Your task to perform on an android device: Clear all items from cart on bestbuy.com. Add alienware aurora to the cart on bestbuy.com, then select checkout. Image 0: 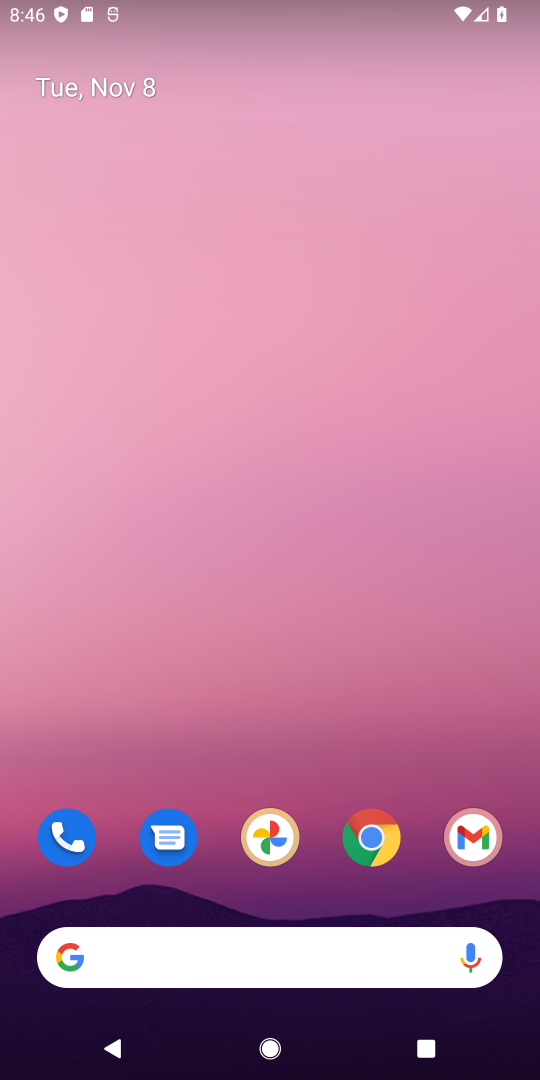
Step 0: click (383, 852)
Your task to perform on an android device: Clear all items from cart on bestbuy.com. Add alienware aurora to the cart on bestbuy.com, then select checkout. Image 1: 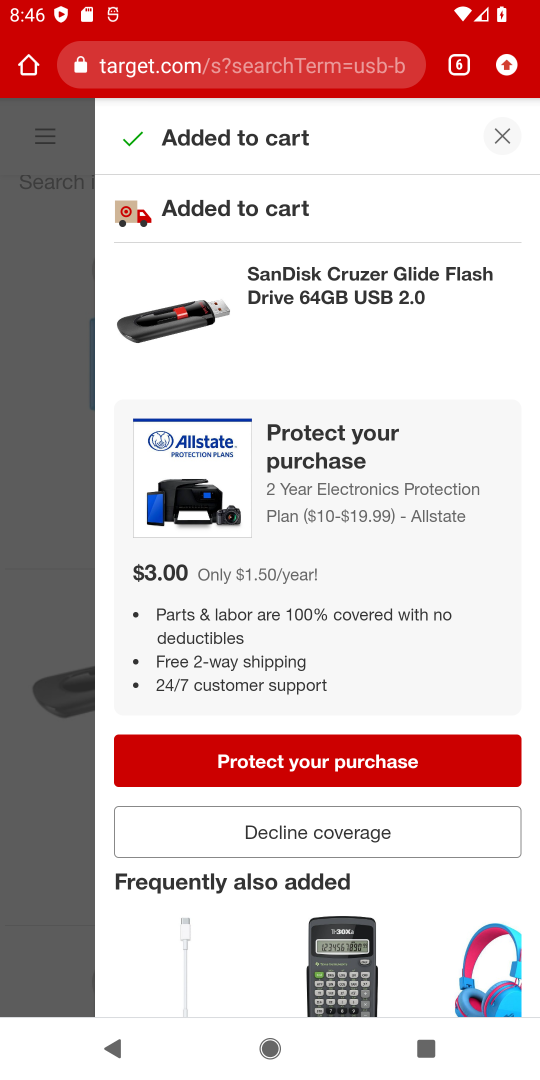
Step 1: click (461, 70)
Your task to perform on an android device: Clear all items from cart on bestbuy.com. Add alienware aurora to the cart on bestbuy.com, then select checkout. Image 2: 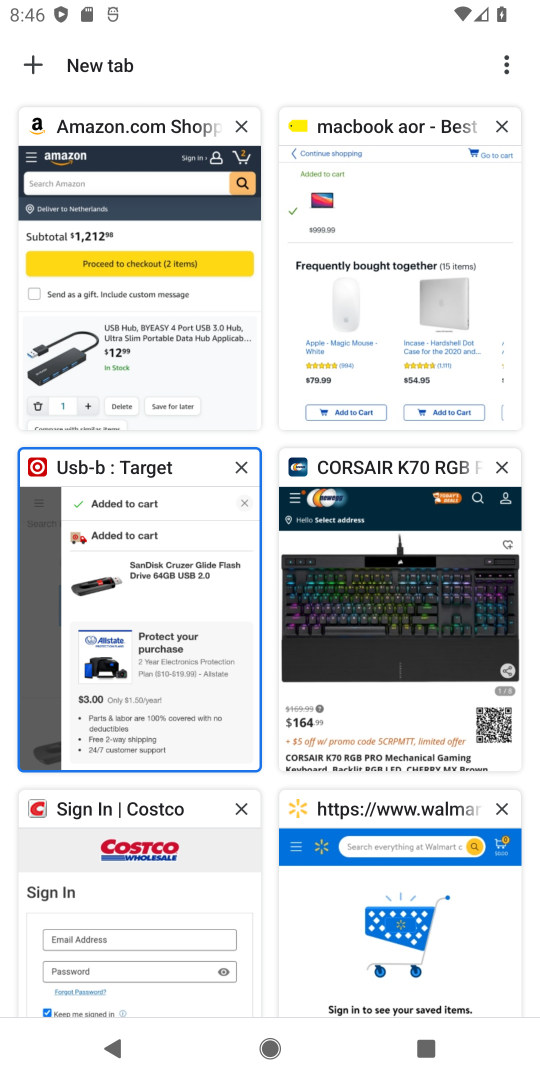
Step 2: click (380, 311)
Your task to perform on an android device: Clear all items from cart on bestbuy.com. Add alienware aurora to the cart on bestbuy.com, then select checkout. Image 3: 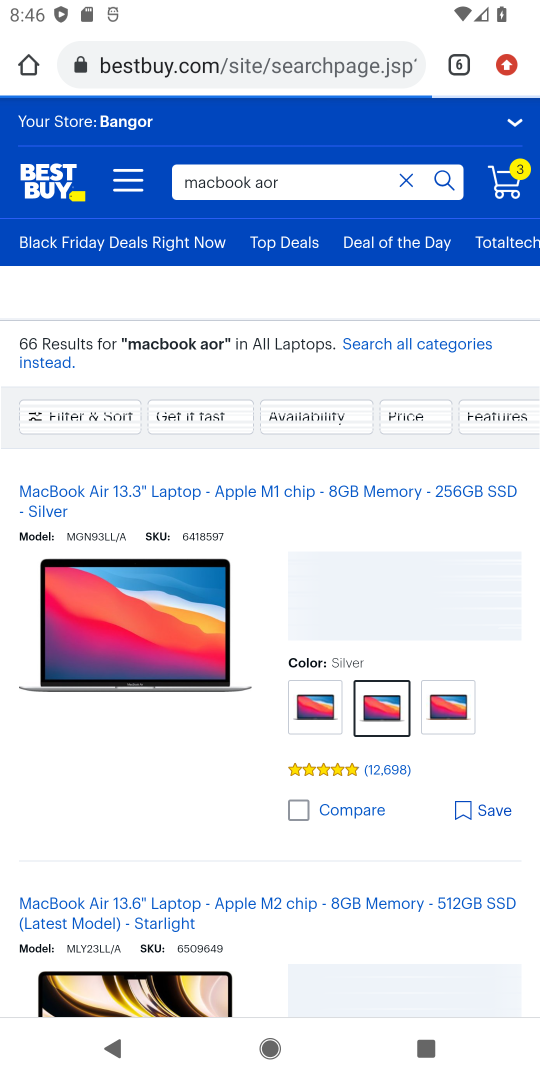
Step 3: click (503, 179)
Your task to perform on an android device: Clear all items from cart on bestbuy.com. Add alienware aurora to the cart on bestbuy.com, then select checkout. Image 4: 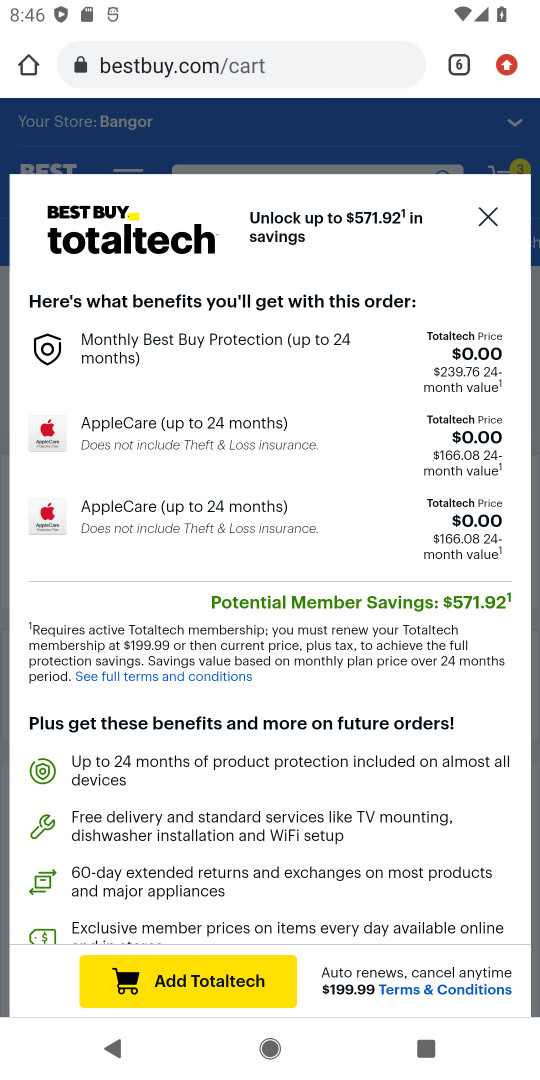
Step 4: click (485, 216)
Your task to perform on an android device: Clear all items from cart on bestbuy.com. Add alienware aurora to the cart on bestbuy.com, then select checkout. Image 5: 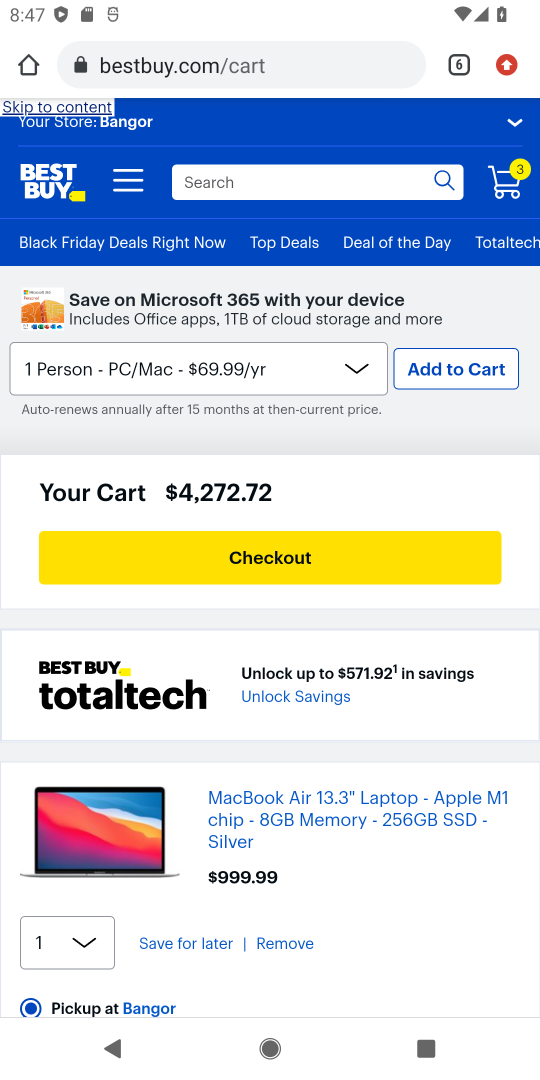
Step 5: click (277, 946)
Your task to perform on an android device: Clear all items from cart on bestbuy.com. Add alienware aurora to the cart on bestbuy.com, then select checkout. Image 6: 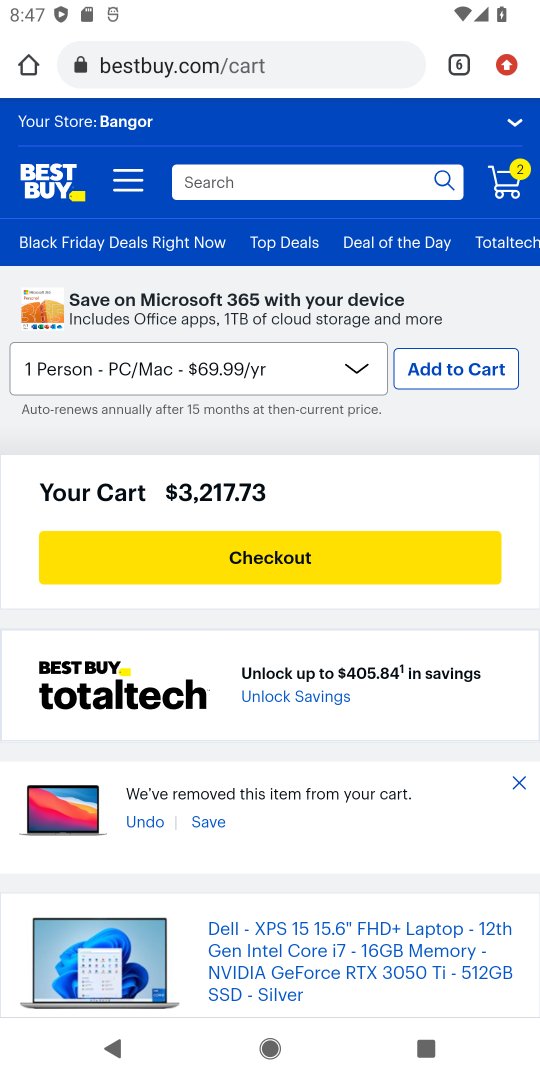
Step 6: drag from (305, 868) to (305, 579)
Your task to perform on an android device: Clear all items from cart on bestbuy.com. Add alienware aurora to the cart on bestbuy.com, then select checkout. Image 7: 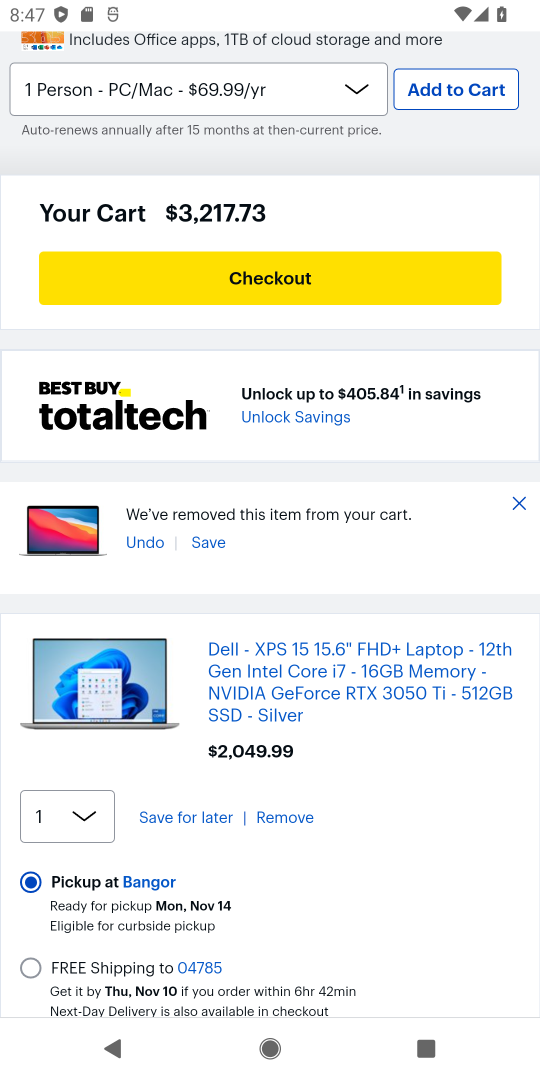
Step 7: click (284, 815)
Your task to perform on an android device: Clear all items from cart on bestbuy.com. Add alienware aurora to the cart on bestbuy.com, then select checkout. Image 8: 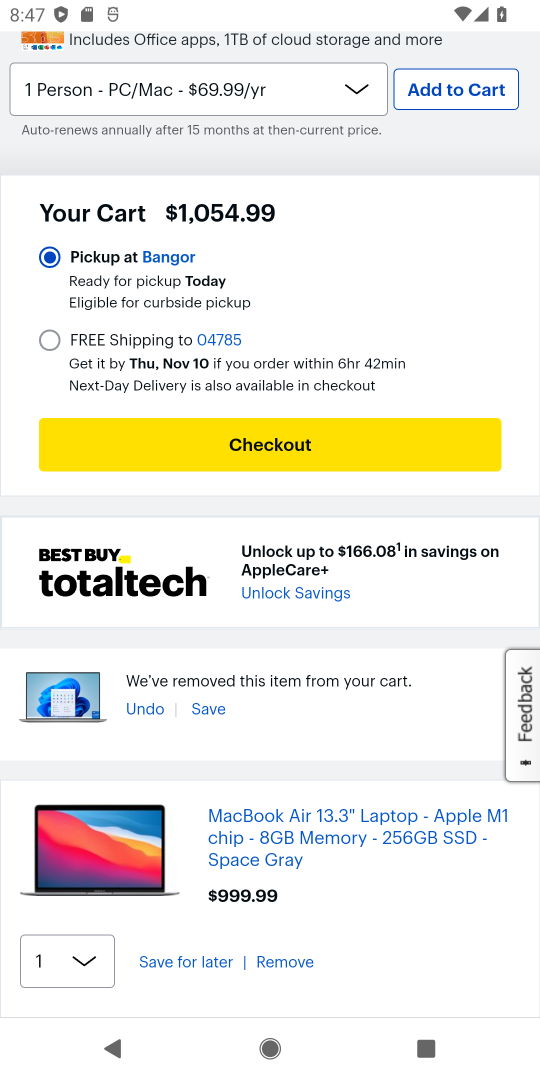
Step 8: click (296, 958)
Your task to perform on an android device: Clear all items from cart on bestbuy.com. Add alienware aurora to the cart on bestbuy.com, then select checkout. Image 9: 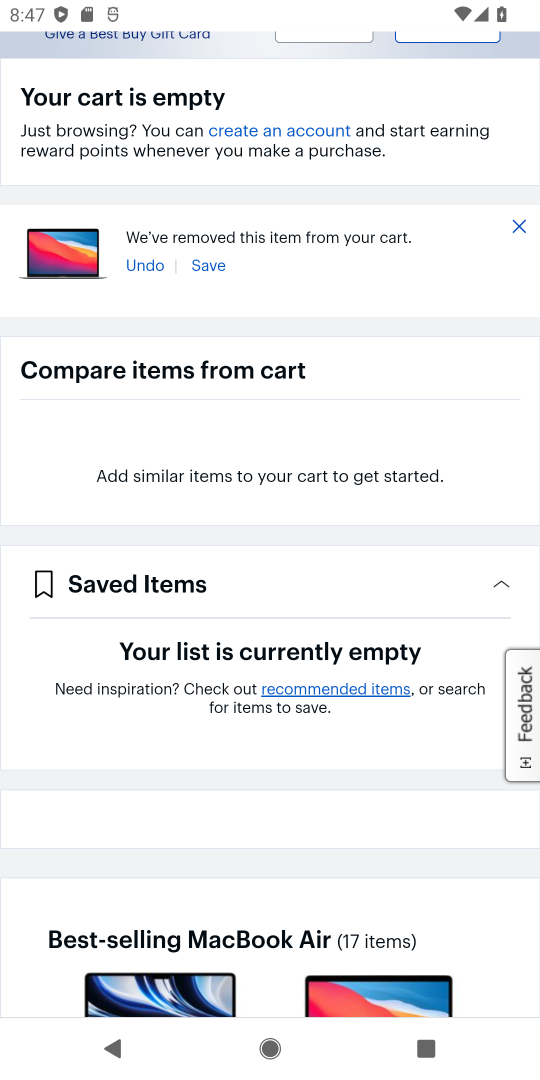
Step 9: drag from (342, 194) to (303, 959)
Your task to perform on an android device: Clear all items from cart on bestbuy.com. Add alienware aurora to the cart on bestbuy.com, then select checkout. Image 10: 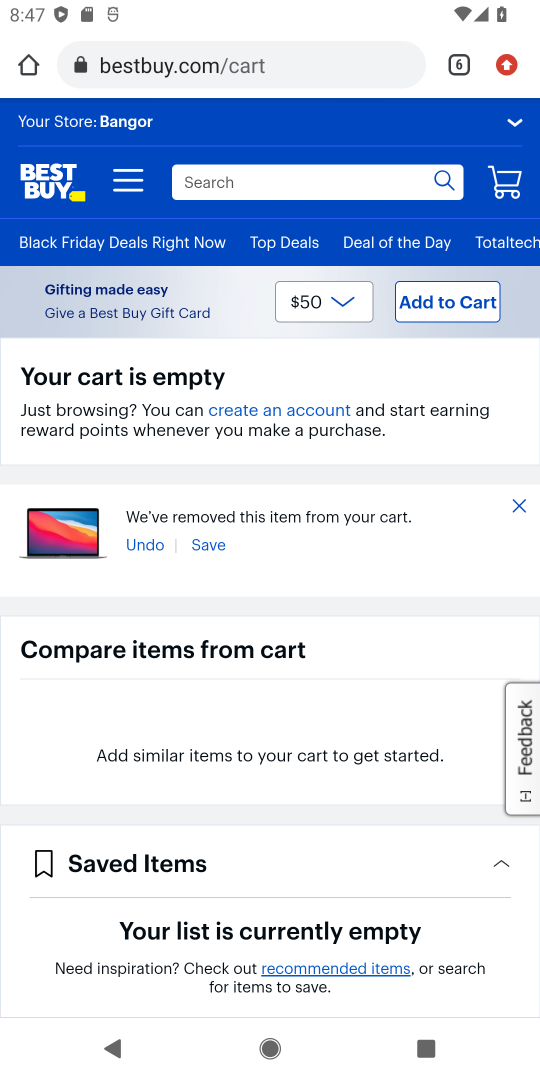
Step 10: click (226, 184)
Your task to perform on an android device: Clear all items from cart on bestbuy.com. Add alienware aurora to the cart on bestbuy.com, then select checkout. Image 11: 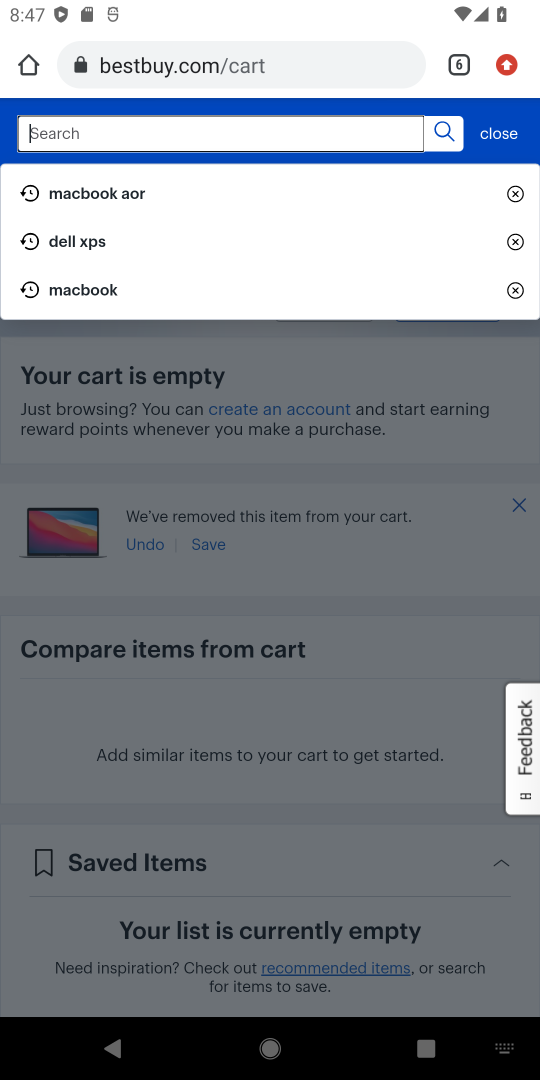
Step 11: type "alienware aurora"
Your task to perform on an android device: Clear all items from cart on bestbuy.com. Add alienware aurora to the cart on bestbuy.com, then select checkout. Image 12: 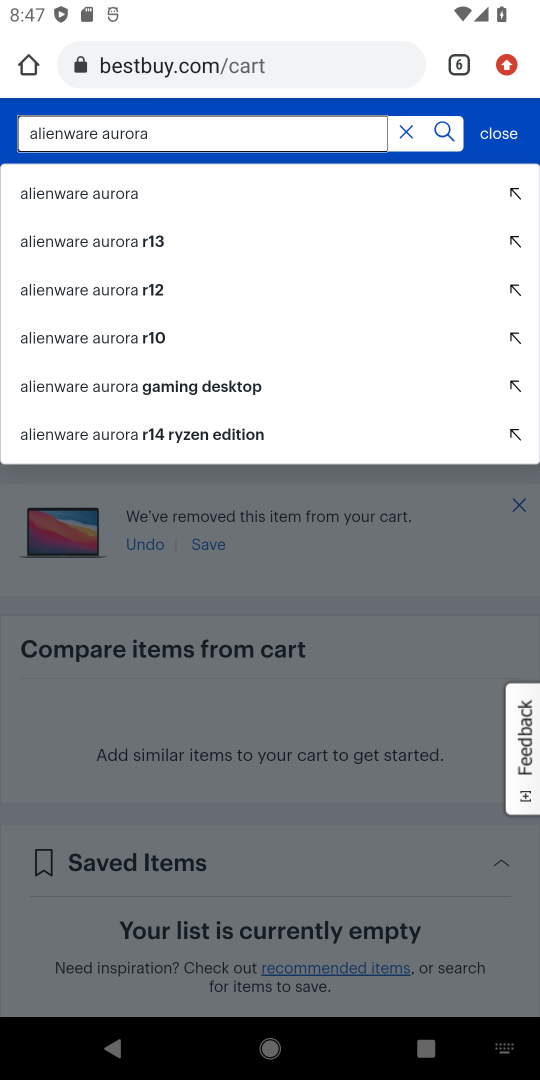
Step 12: click (120, 193)
Your task to perform on an android device: Clear all items from cart on bestbuy.com. Add alienware aurora to the cart on bestbuy.com, then select checkout. Image 13: 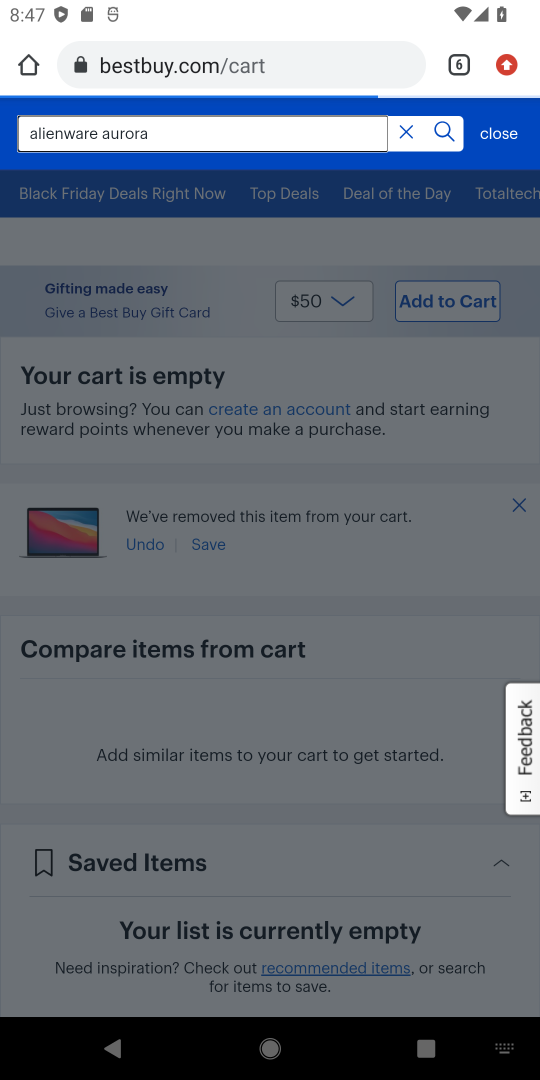
Step 13: click (450, 134)
Your task to perform on an android device: Clear all items from cart on bestbuy.com. Add alienware aurora to the cart on bestbuy.com, then select checkout. Image 14: 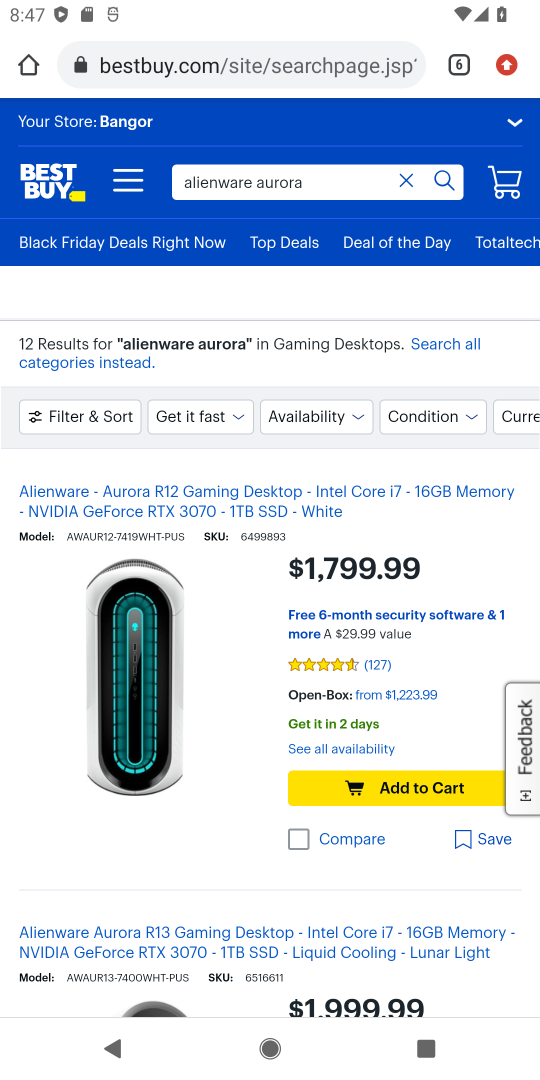
Step 14: click (383, 727)
Your task to perform on an android device: Clear all items from cart on bestbuy.com. Add alienware aurora to the cart on bestbuy.com, then select checkout. Image 15: 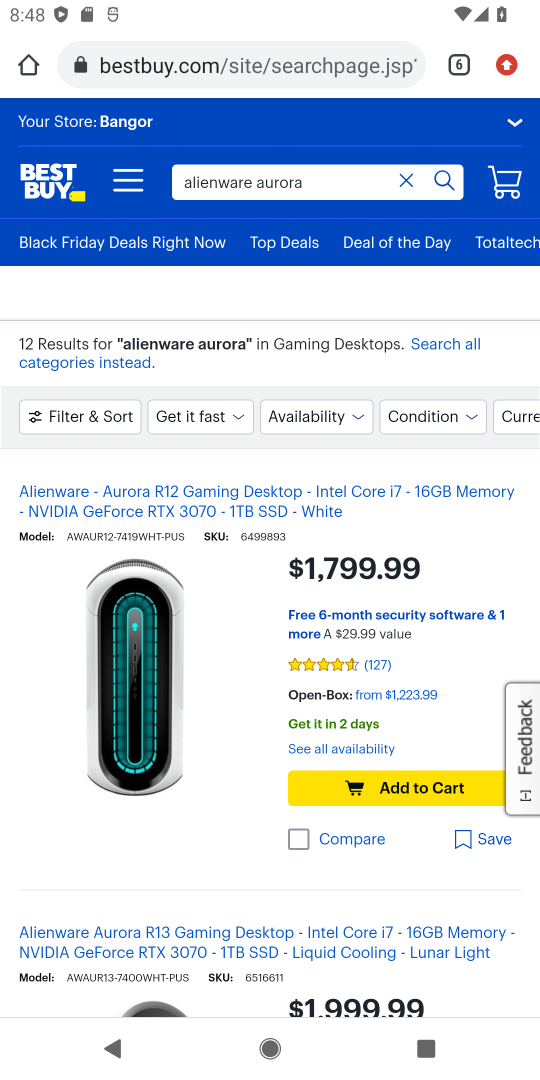
Step 15: click (414, 787)
Your task to perform on an android device: Clear all items from cart on bestbuy.com. Add alienware aurora to the cart on bestbuy.com, then select checkout. Image 16: 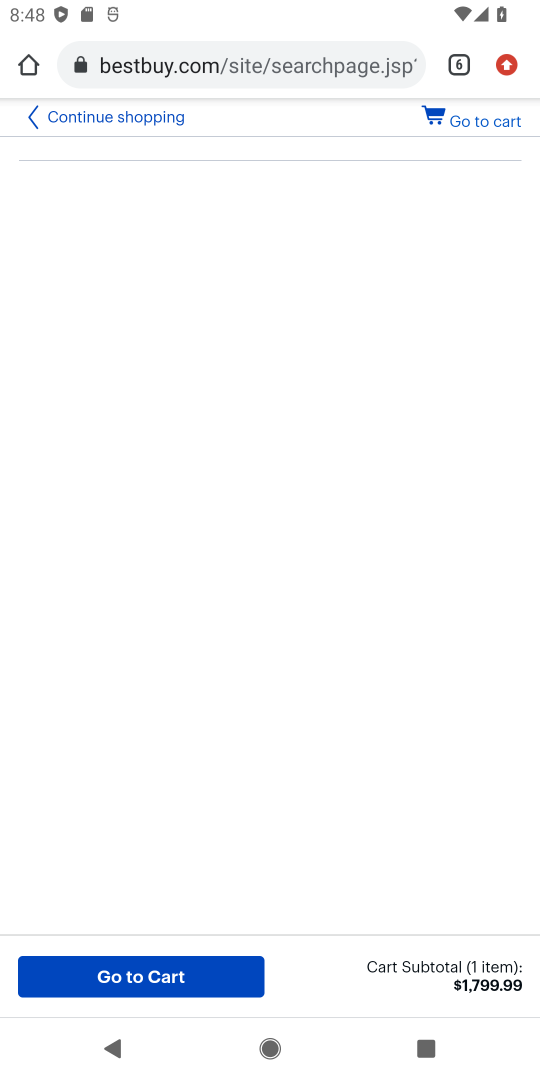
Step 16: task complete